Your task to perform on an android device: Open Android settings Image 0: 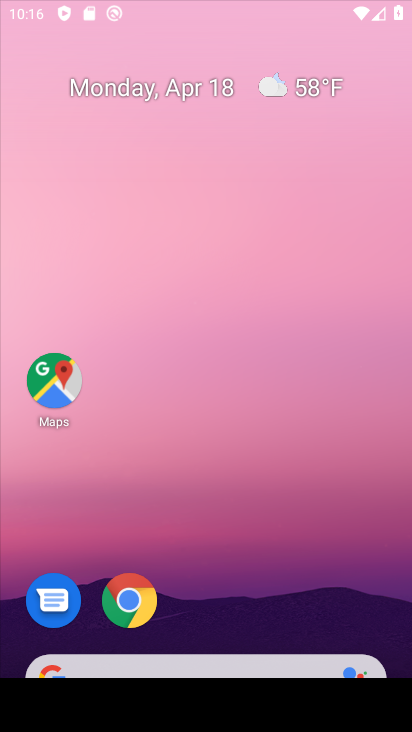
Step 0: drag from (229, 481) to (332, 6)
Your task to perform on an android device: Open Android settings Image 1: 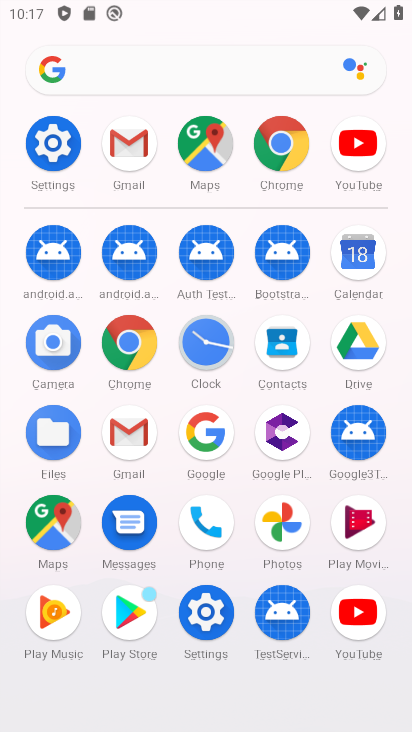
Step 1: click (52, 147)
Your task to perform on an android device: Open Android settings Image 2: 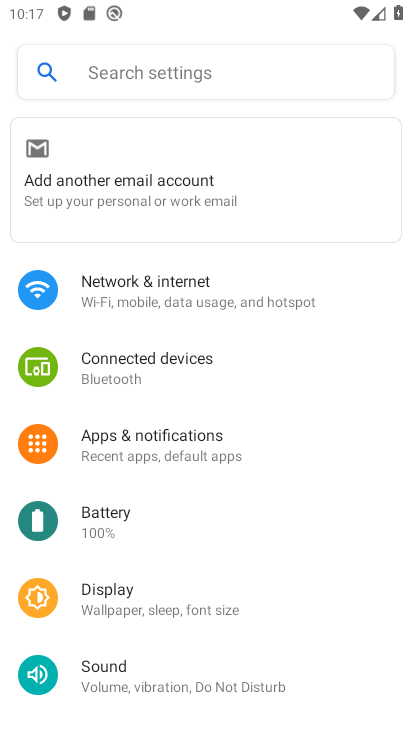
Step 2: drag from (202, 551) to (199, 149)
Your task to perform on an android device: Open Android settings Image 3: 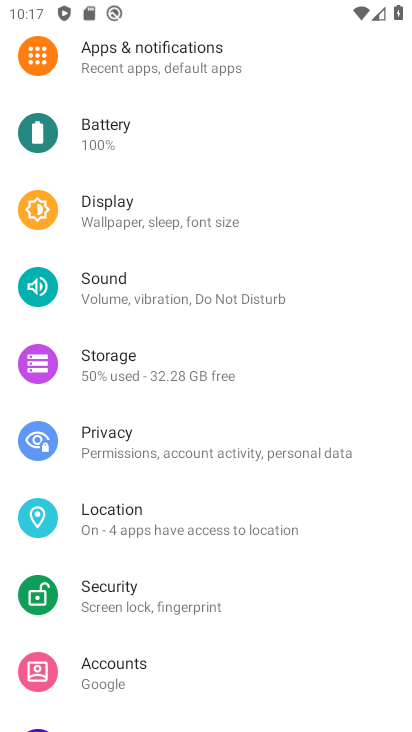
Step 3: drag from (202, 501) to (219, 17)
Your task to perform on an android device: Open Android settings Image 4: 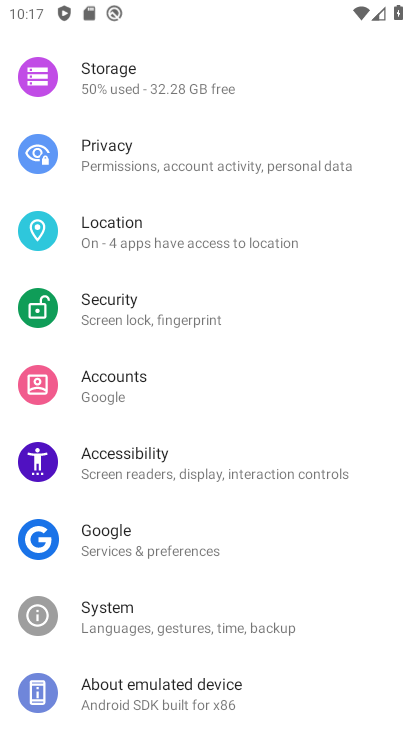
Step 4: drag from (189, 661) to (196, 244)
Your task to perform on an android device: Open Android settings Image 5: 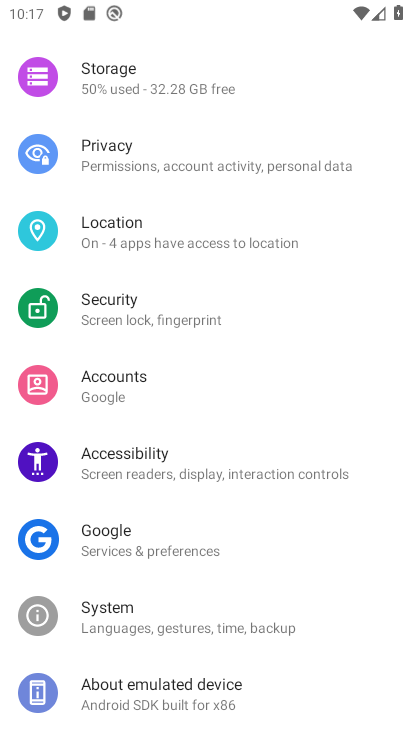
Step 5: click (146, 679)
Your task to perform on an android device: Open Android settings Image 6: 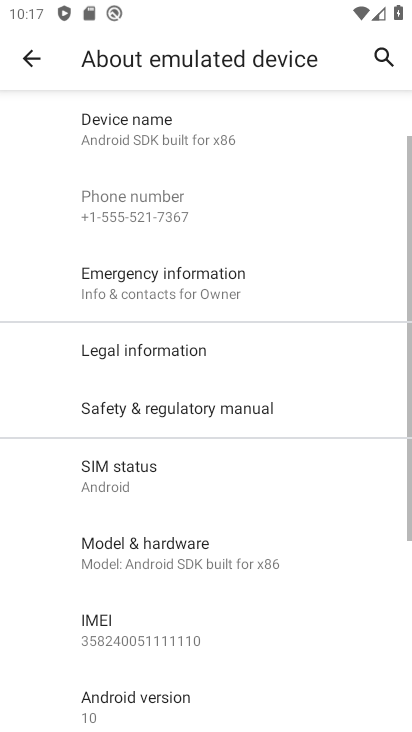
Step 6: drag from (200, 519) to (208, 141)
Your task to perform on an android device: Open Android settings Image 7: 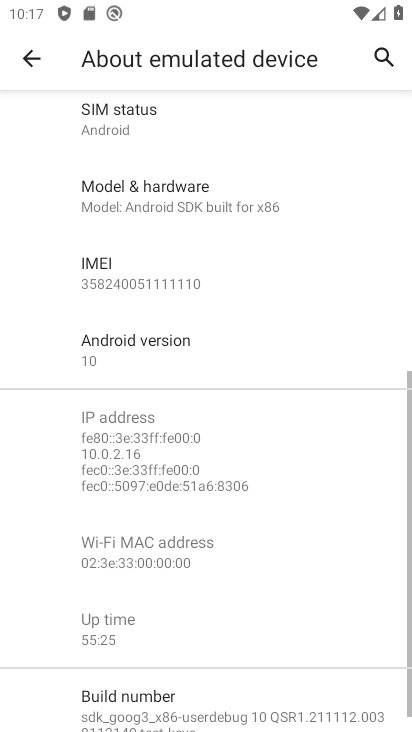
Step 7: click (151, 339)
Your task to perform on an android device: Open Android settings Image 8: 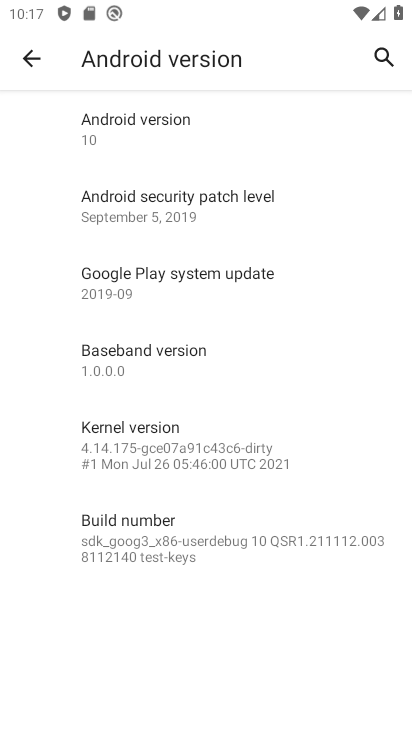
Step 8: task complete